Your task to perform on an android device: show emergency info Image 0: 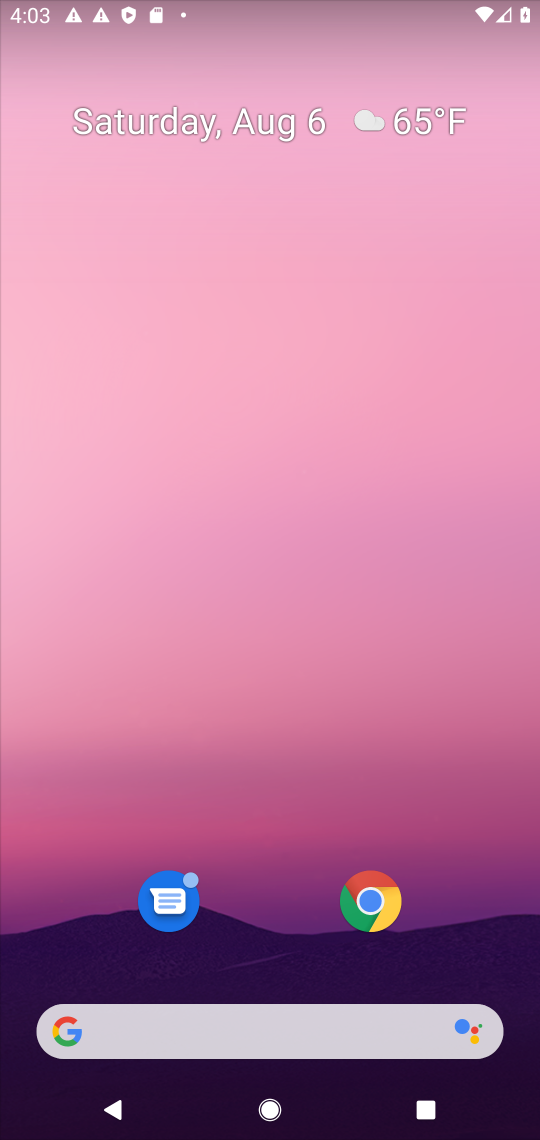
Step 0: drag from (263, 957) to (289, 164)
Your task to perform on an android device: show emergency info Image 1: 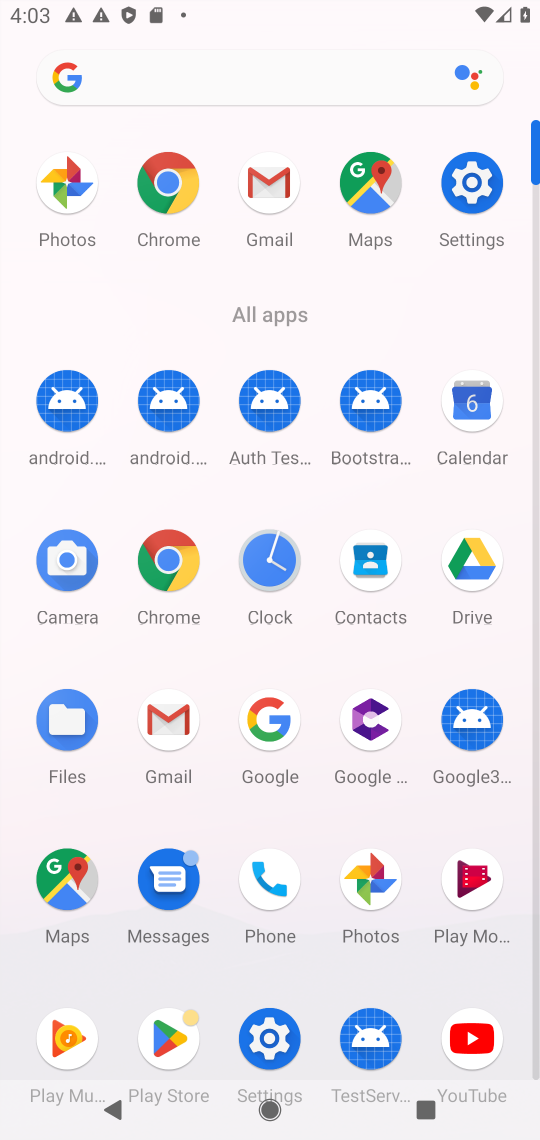
Step 1: click (490, 190)
Your task to perform on an android device: show emergency info Image 2: 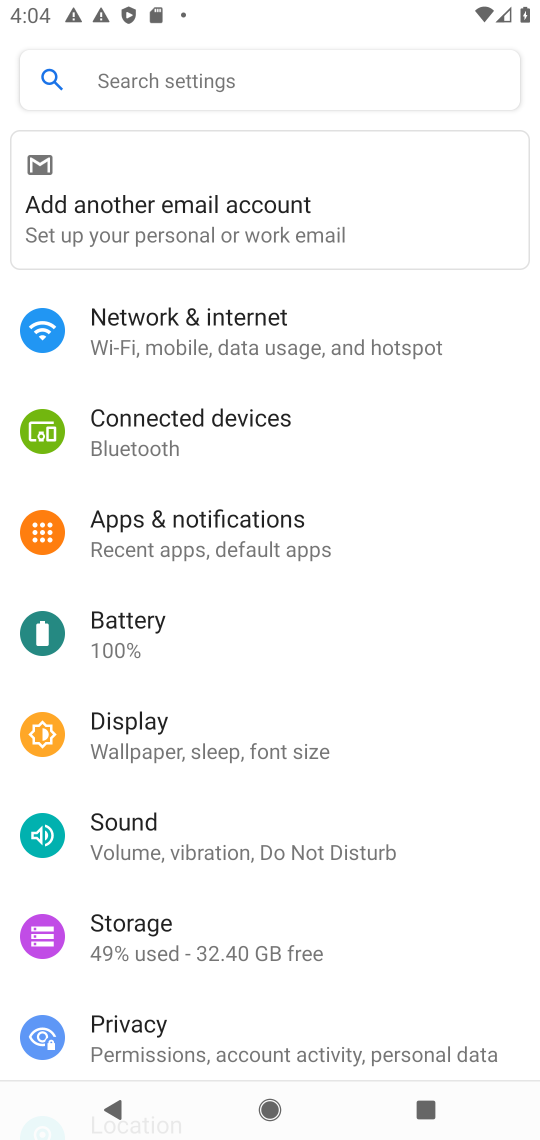
Step 2: drag from (371, 867) to (290, 180)
Your task to perform on an android device: show emergency info Image 3: 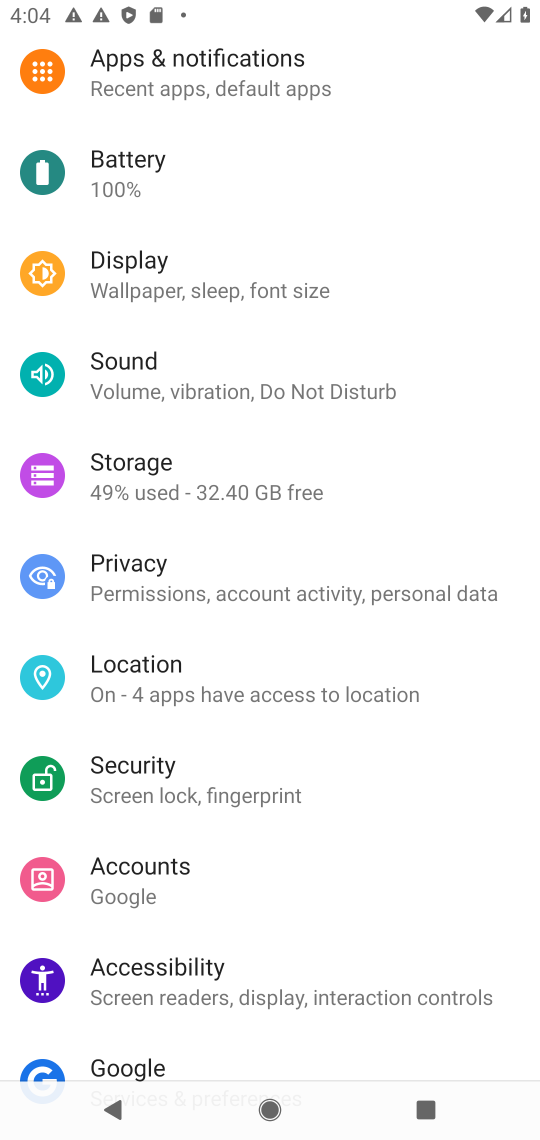
Step 3: drag from (188, 999) to (315, 121)
Your task to perform on an android device: show emergency info Image 4: 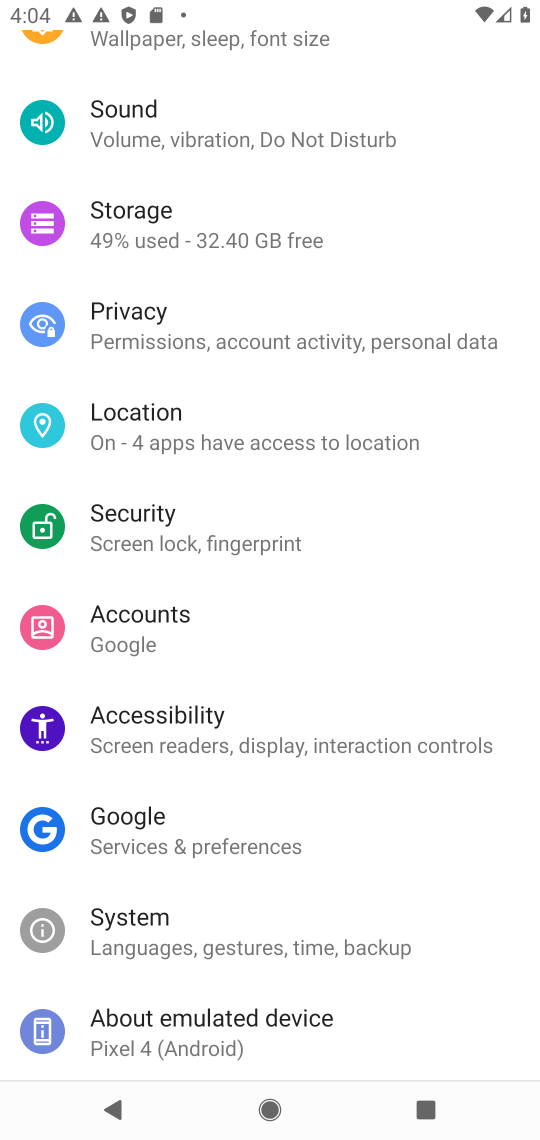
Step 4: click (230, 1036)
Your task to perform on an android device: show emergency info Image 5: 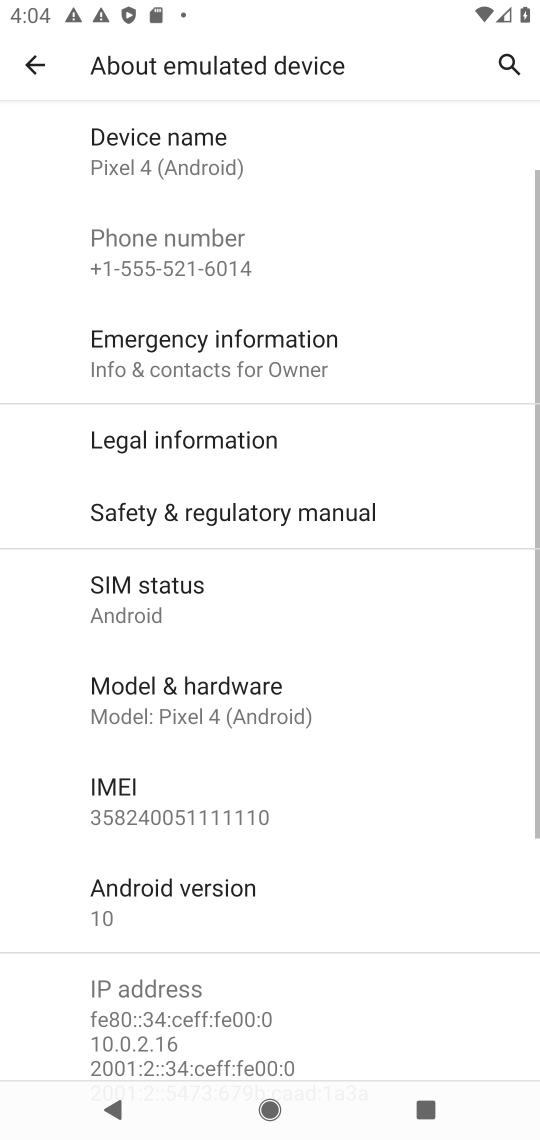
Step 5: click (227, 352)
Your task to perform on an android device: show emergency info Image 6: 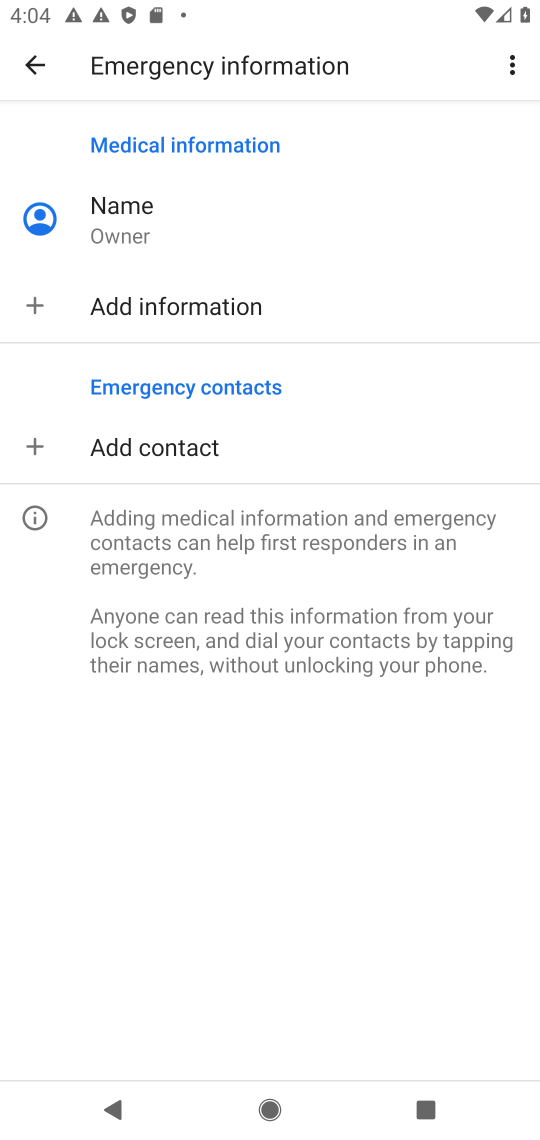
Step 6: task complete